Your task to perform on an android device: Go to ESPN.com Image 0: 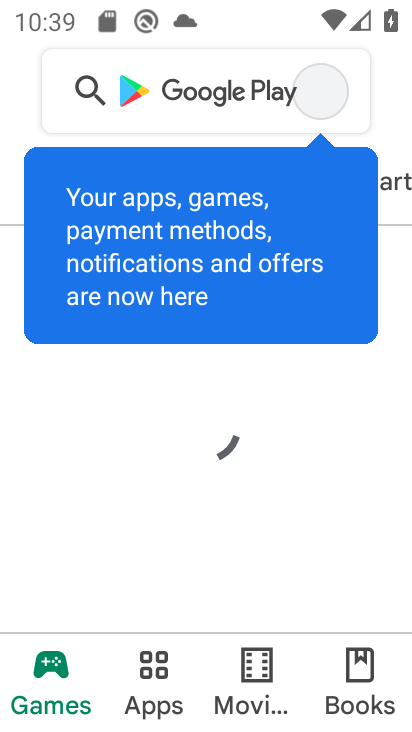
Step 0: press home button
Your task to perform on an android device: Go to ESPN.com Image 1: 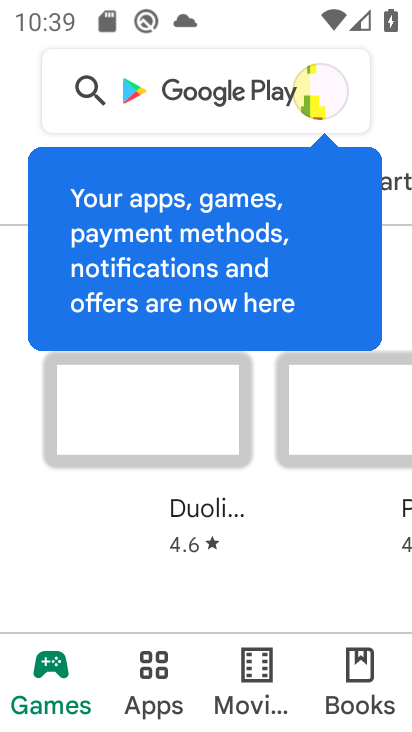
Step 1: press home button
Your task to perform on an android device: Go to ESPN.com Image 2: 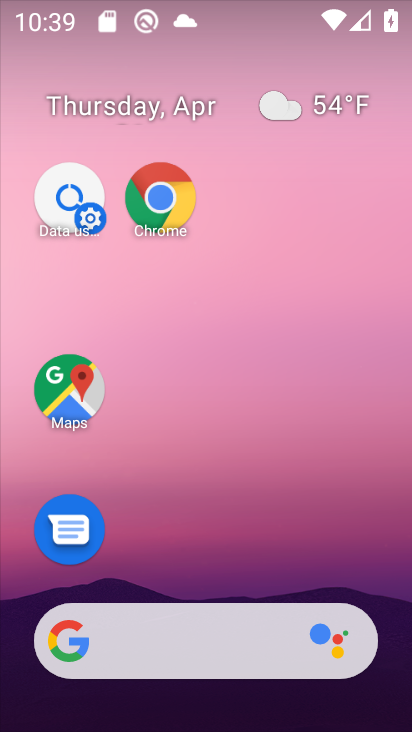
Step 2: drag from (188, 589) to (145, 23)
Your task to perform on an android device: Go to ESPN.com Image 3: 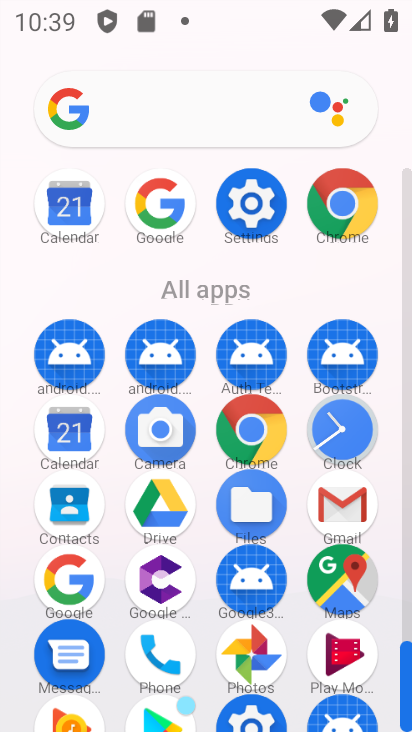
Step 3: click (261, 444)
Your task to perform on an android device: Go to ESPN.com Image 4: 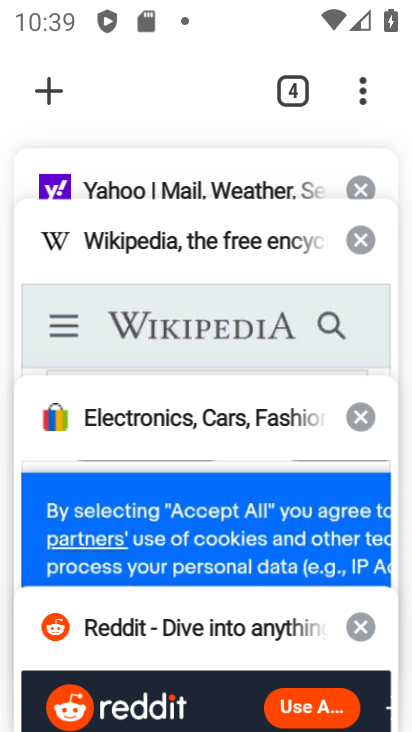
Step 4: click (33, 76)
Your task to perform on an android device: Go to ESPN.com Image 5: 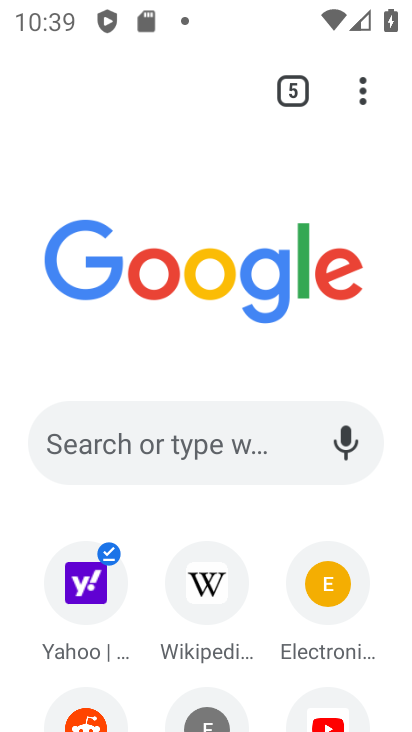
Step 5: drag from (268, 689) to (231, 427)
Your task to perform on an android device: Go to ESPN.com Image 6: 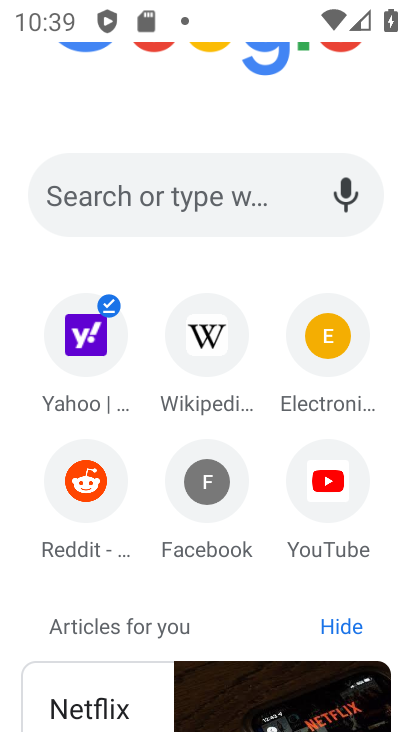
Step 6: click (120, 202)
Your task to perform on an android device: Go to ESPN.com Image 7: 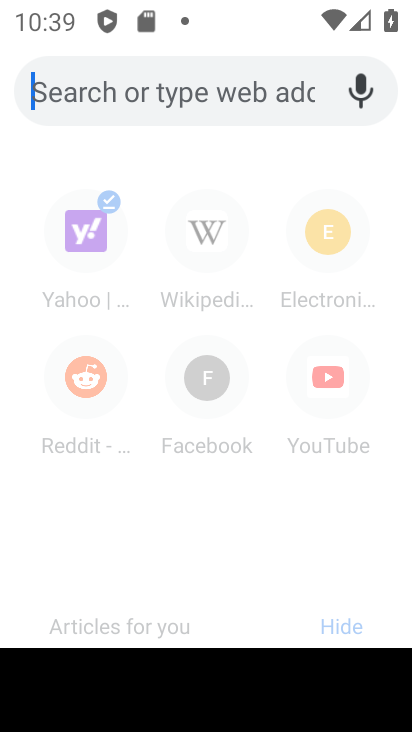
Step 7: type "espn"
Your task to perform on an android device: Go to ESPN.com Image 8: 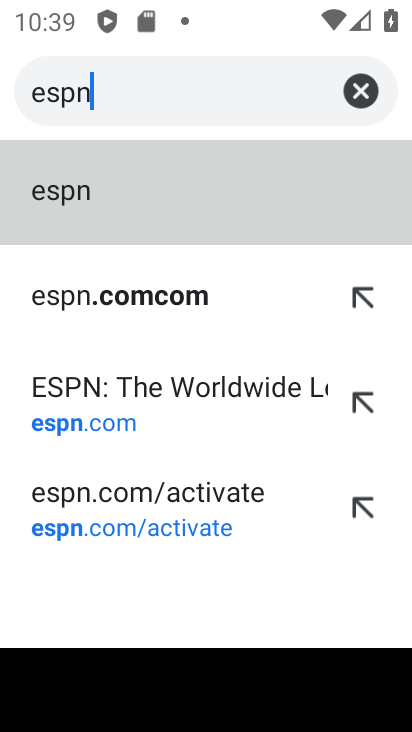
Step 8: click (165, 421)
Your task to perform on an android device: Go to ESPN.com Image 9: 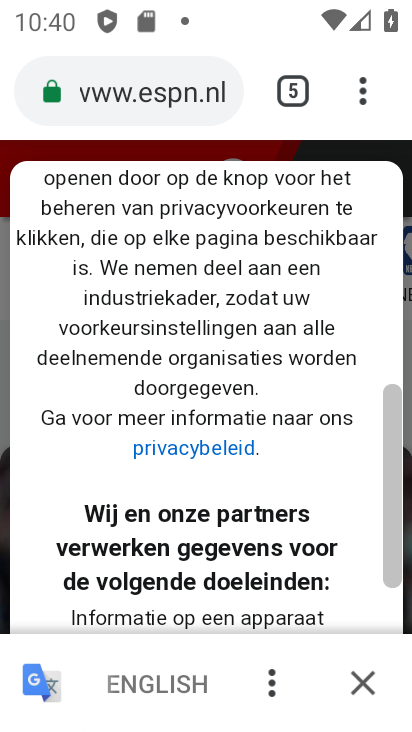
Step 9: drag from (274, 517) to (247, 207)
Your task to perform on an android device: Go to ESPN.com Image 10: 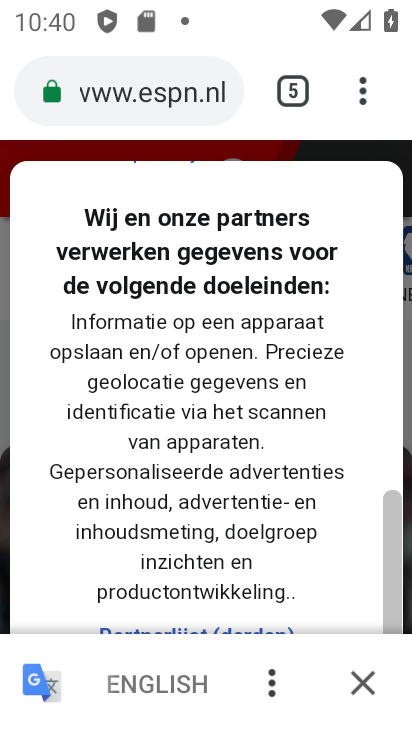
Step 10: click (363, 689)
Your task to perform on an android device: Go to ESPN.com Image 11: 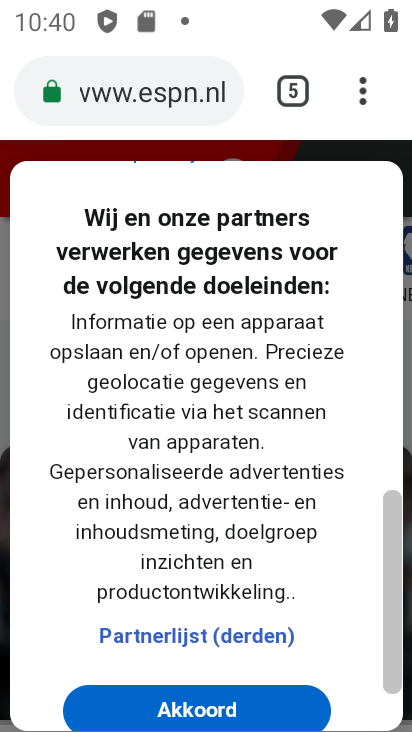
Step 11: task complete